Your task to perform on an android device: set default search engine in the chrome app Image 0: 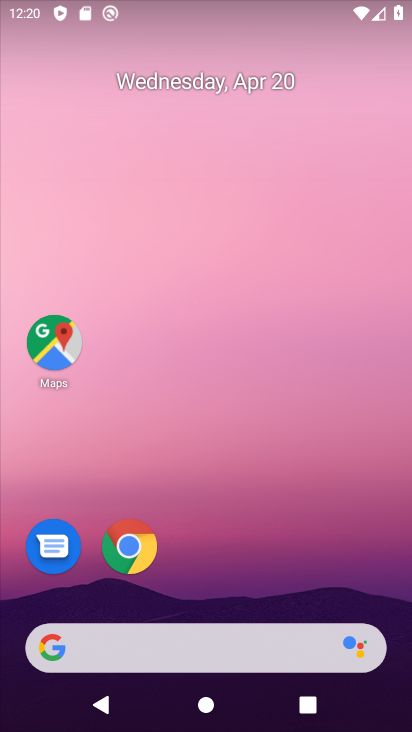
Step 0: click (128, 562)
Your task to perform on an android device: set default search engine in the chrome app Image 1: 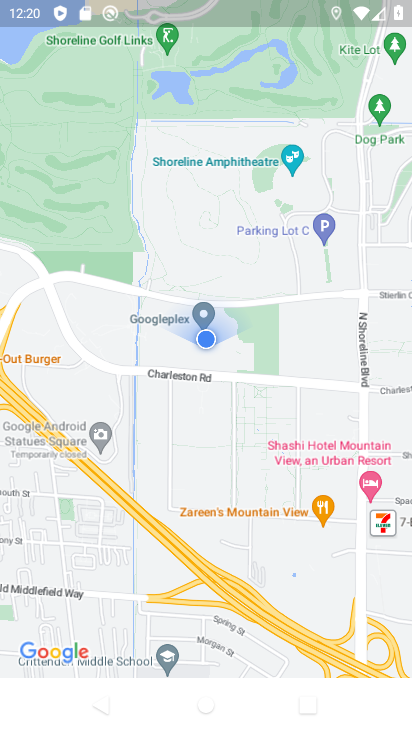
Step 1: press back button
Your task to perform on an android device: set default search engine in the chrome app Image 2: 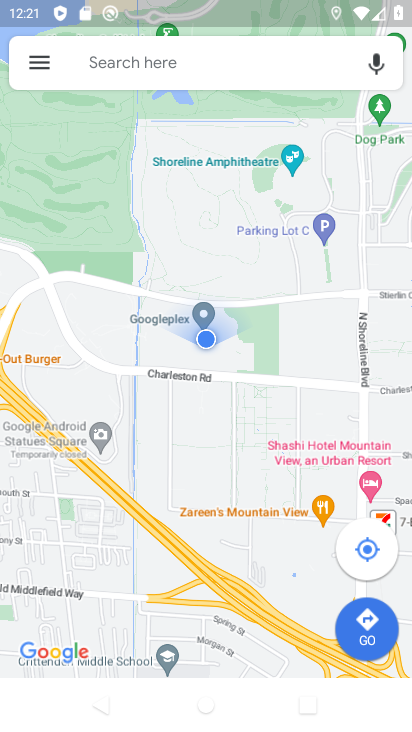
Step 2: press back button
Your task to perform on an android device: set default search engine in the chrome app Image 3: 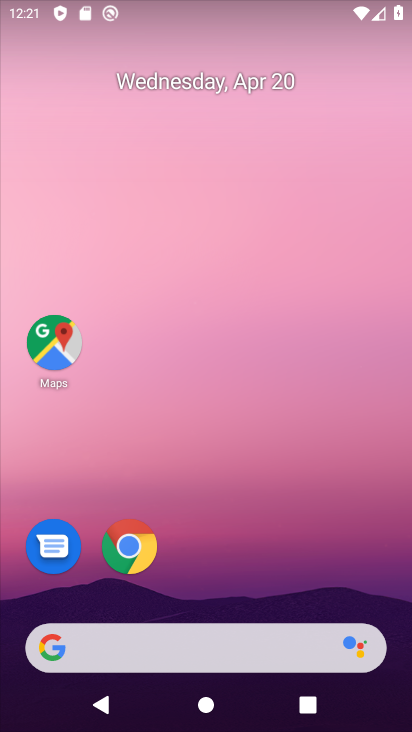
Step 3: click (136, 548)
Your task to perform on an android device: set default search engine in the chrome app Image 4: 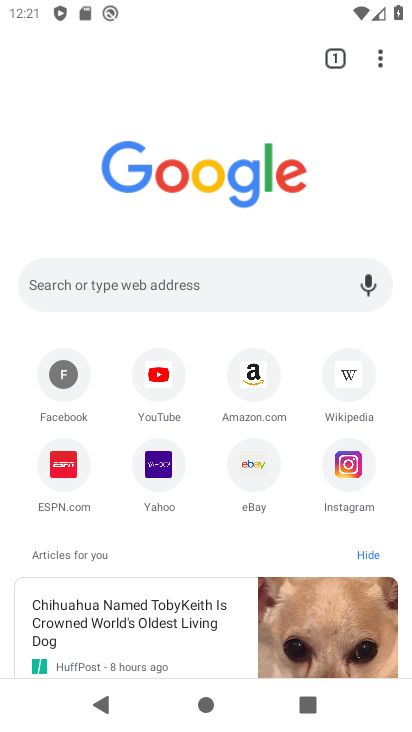
Step 4: drag from (377, 65) to (212, 481)
Your task to perform on an android device: set default search engine in the chrome app Image 5: 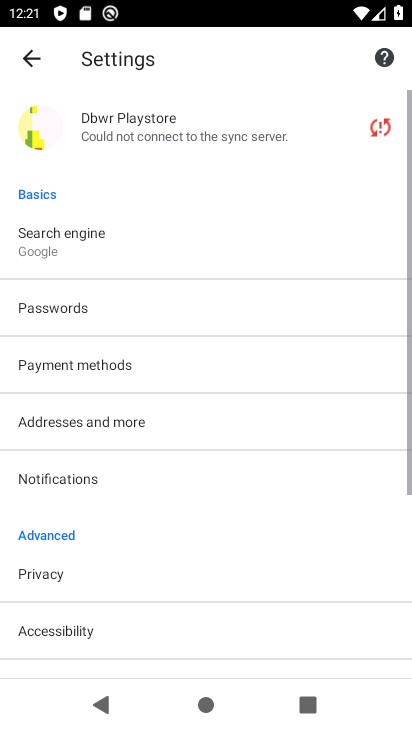
Step 5: drag from (175, 618) to (224, 186)
Your task to perform on an android device: set default search engine in the chrome app Image 6: 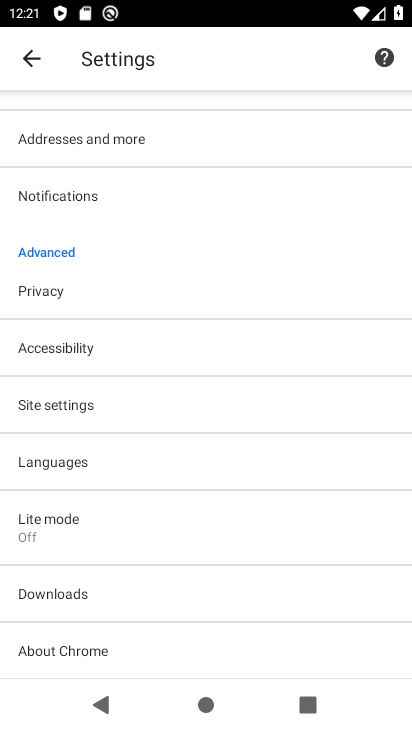
Step 6: drag from (159, 161) to (95, 639)
Your task to perform on an android device: set default search engine in the chrome app Image 7: 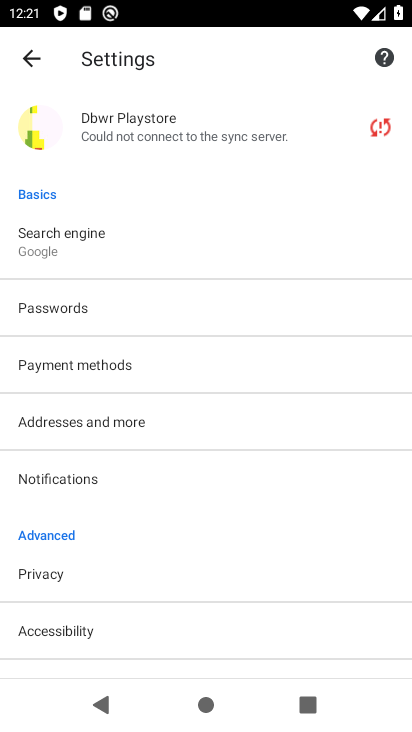
Step 7: click (77, 240)
Your task to perform on an android device: set default search engine in the chrome app Image 8: 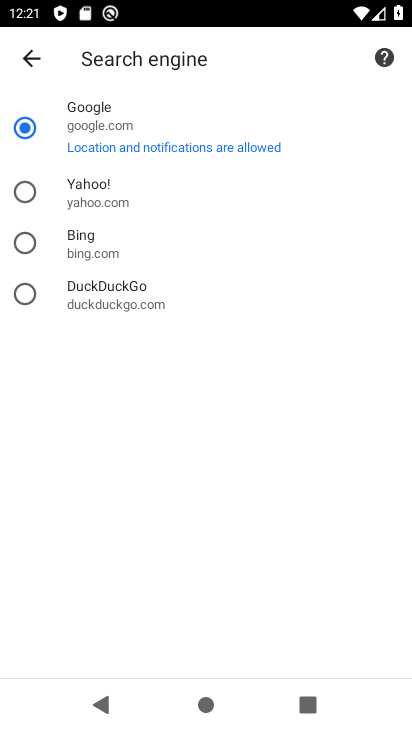
Step 8: click (32, 190)
Your task to perform on an android device: set default search engine in the chrome app Image 9: 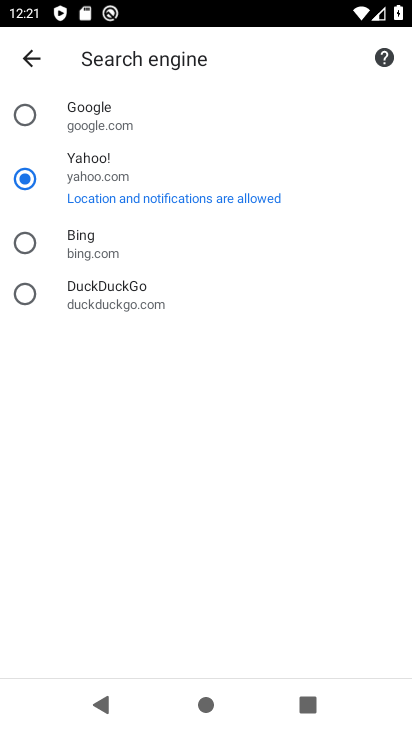
Step 9: task complete